Your task to perform on an android device: What's on my calendar today? Image 0: 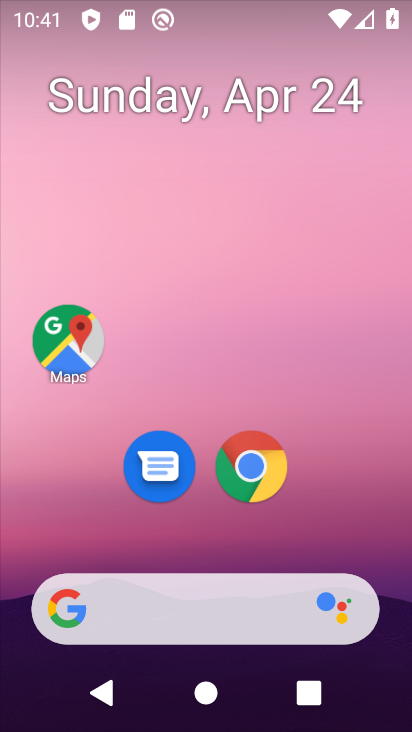
Step 0: drag from (365, 536) to (361, 2)
Your task to perform on an android device: What's on my calendar today? Image 1: 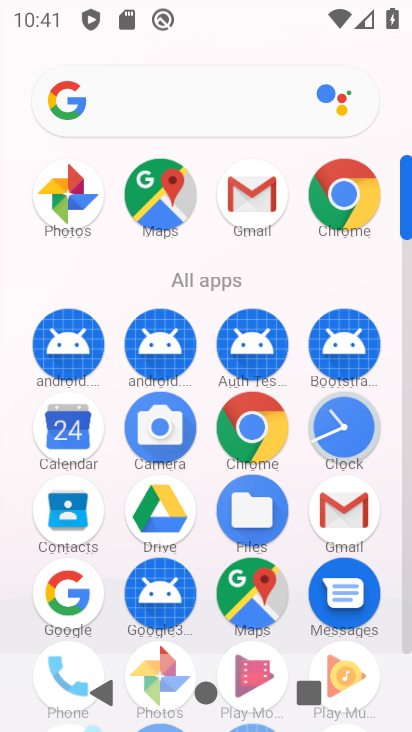
Step 1: click (67, 436)
Your task to perform on an android device: What's on my calendar today? Image 2: 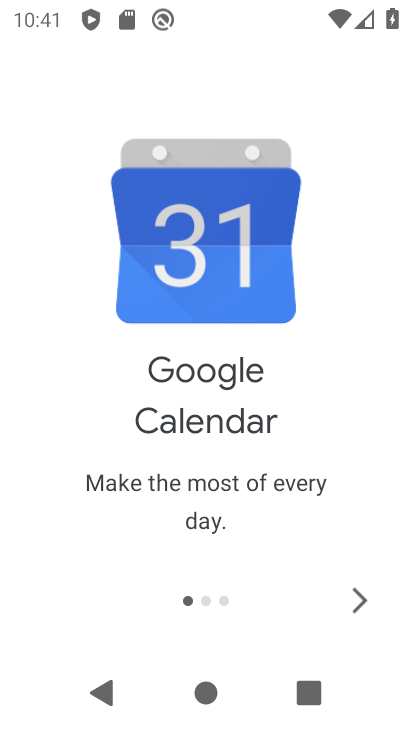
Step 2: click (359, 610)
Your task to perform on an android device: What's on my calendar today? Image 3: 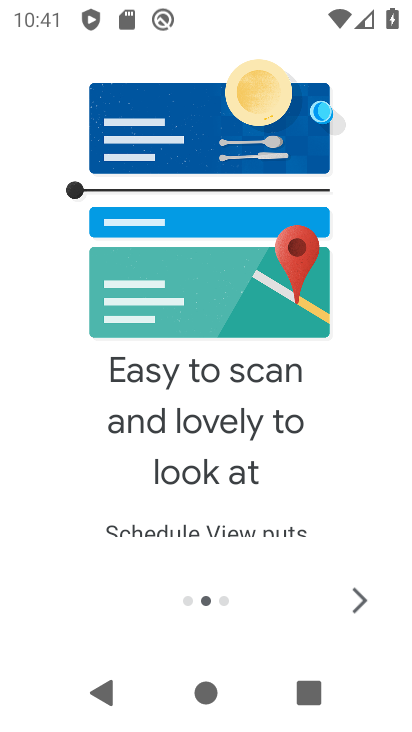
Step 3: click (359, 610)
Your task to perform on an android device: What's on my calendar today? Image 4: 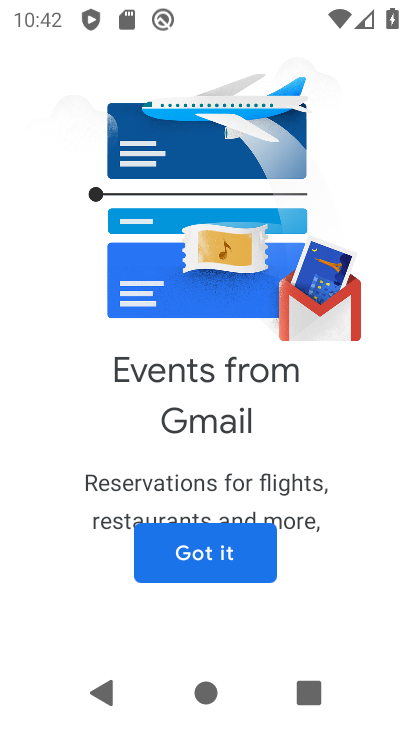
Step 4: click (214, 565)
Your task to perform on an android device: What's on my calendar today? Image 5: 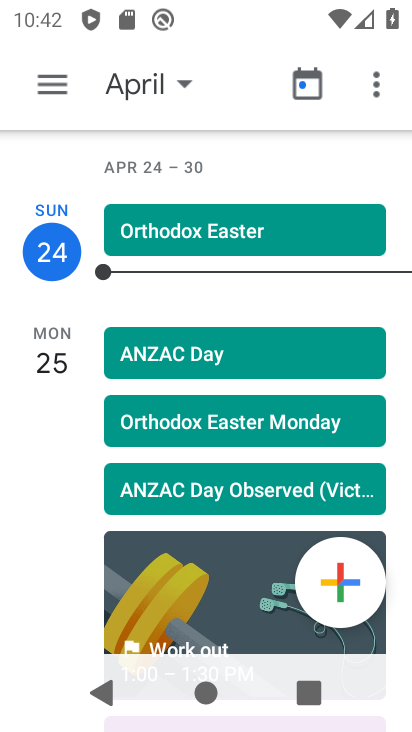
Step 5: drag from (181, 364) to (182, 314)
Your task to perform on an android device: What's on my calendar today? Image 6: 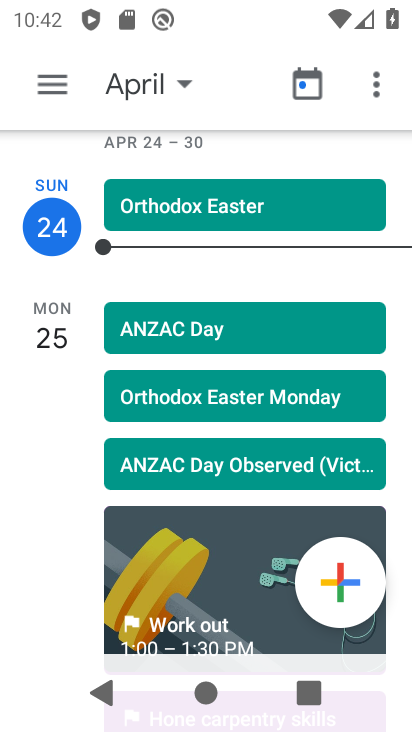
Step 6: click (186, 87)
Your task to perform on an android device: What's on my calendar today? Image 7: 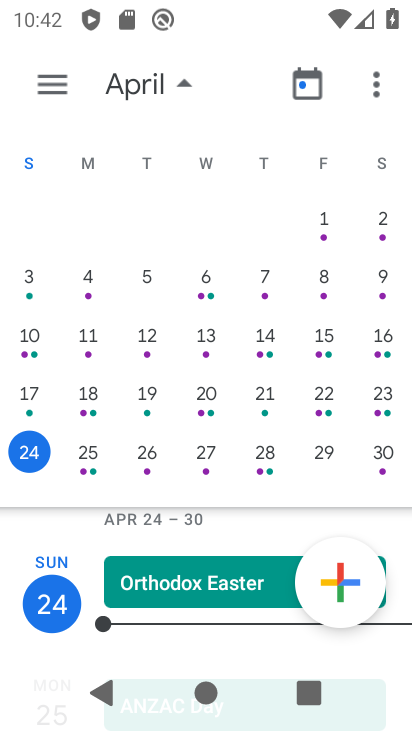
Step 7: click (33, 449)
Your task to perform on an android device: What's on my calendar today? Image 8: 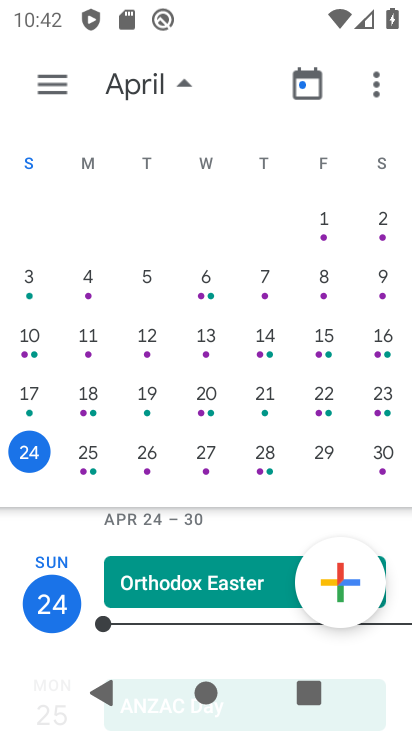
Step 8: task complete